Your task to perform on an android device: Go to battery settings Image 0: 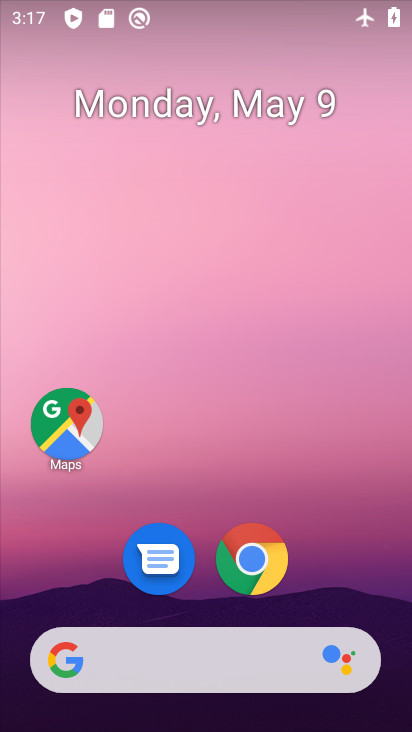
Step 0: drag from (240, 724) to (253, 297)
Your task to perform on an android device: Go to battery settings Image 1: 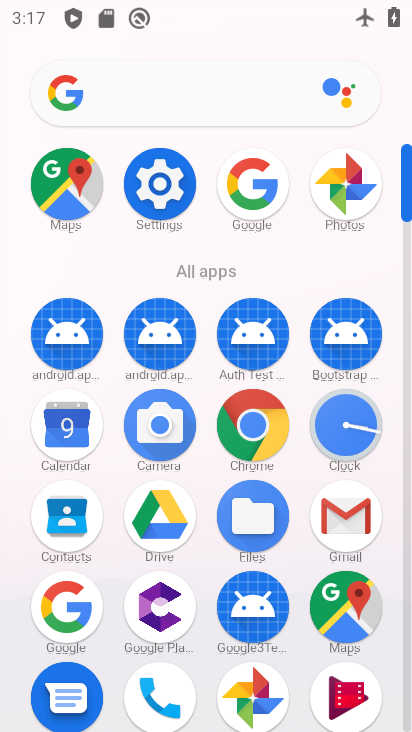
Step 1: click (165, 179)
Your task to perform on an android device: Go to battery settings Image 2: 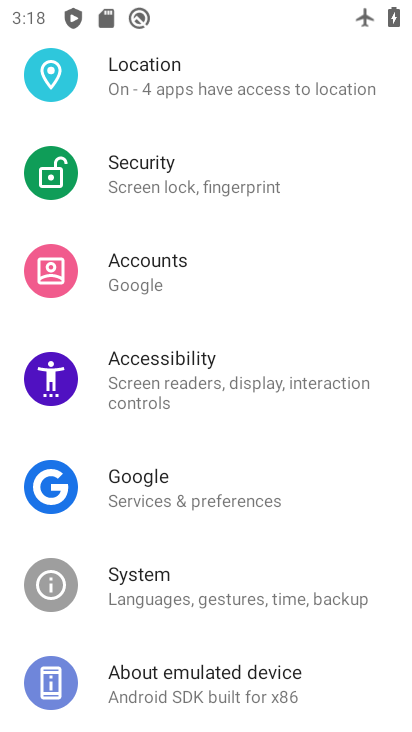
Step 2: drag from (339, 178) to (326, 624)
Your task to perform on an android device: Go to battery settings Image 3: 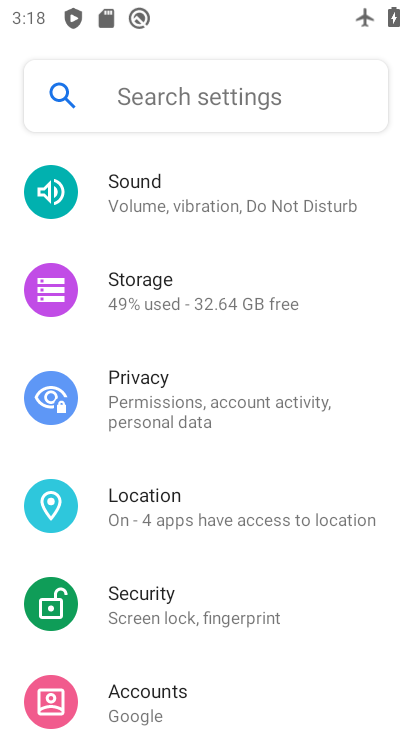
Step 3: drag from (350, 215) to (337, 583)
Your task to perform on an android device: Go to battery settings Image 4: 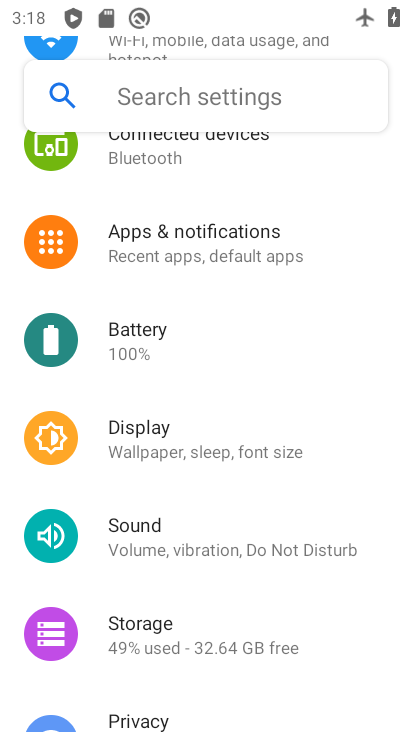
Step 4: click (132, 335)
Your task to perform on an android device: Go to battery settings Image 5: 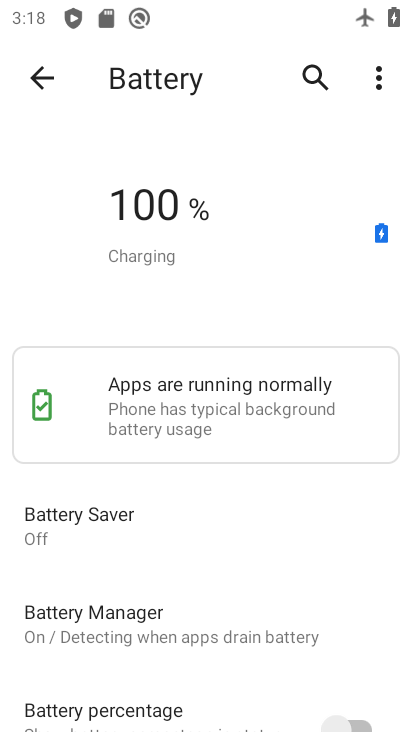
Step 5: task complete